Your task to perform on an android device: Show me the alarms in the clock app Image 0: 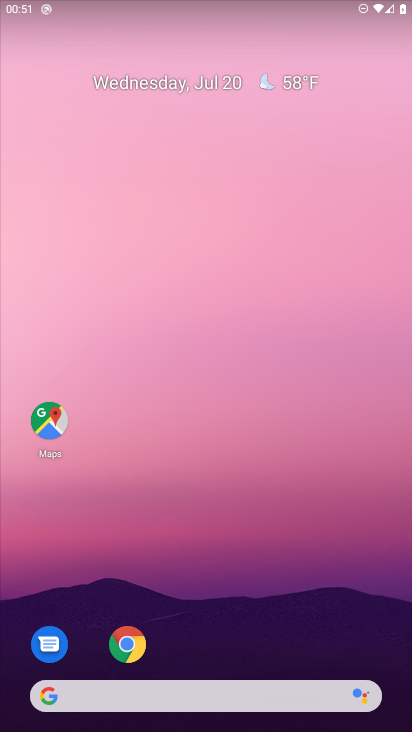
Step 0: drag from (83, 534) to (248, 100)
Your task to perform on an android device: Show me the alarms in the clock app Image 1: 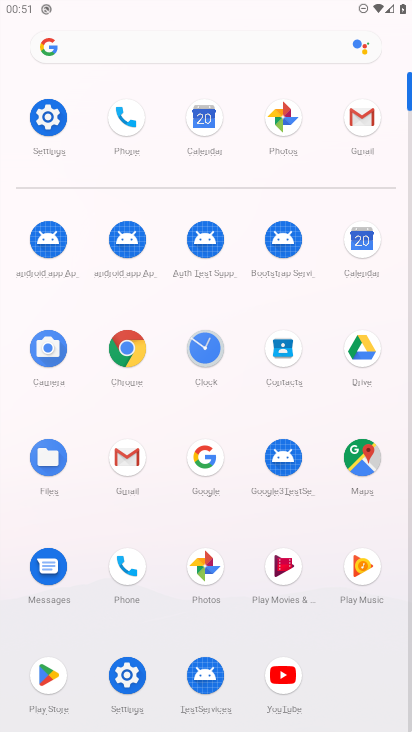
Step 1: click (204, 347)
Your task to perform on an android device: Show me the alarms in the clock app Image 2: 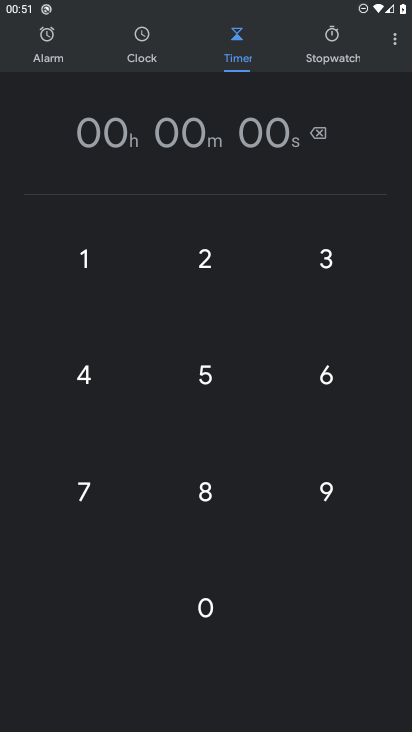
Step 2: click (395, 41)
Your task to perform on an android device: Show me the alarms in the clock app Image 3: 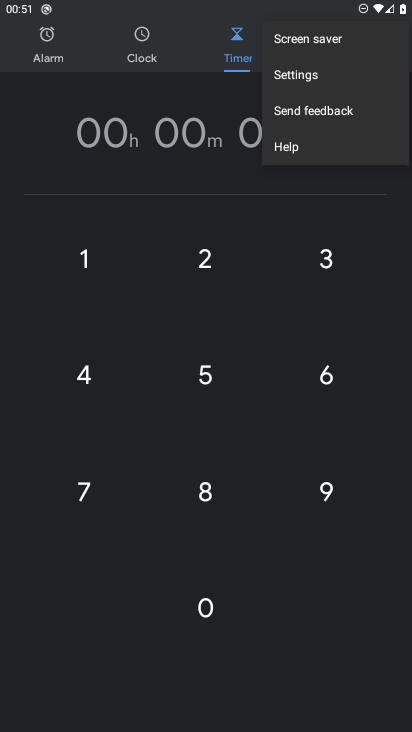
Step 3: click (55, 48)
Your task to perform on an android device: Show me the alarms in the clock app Image 4: 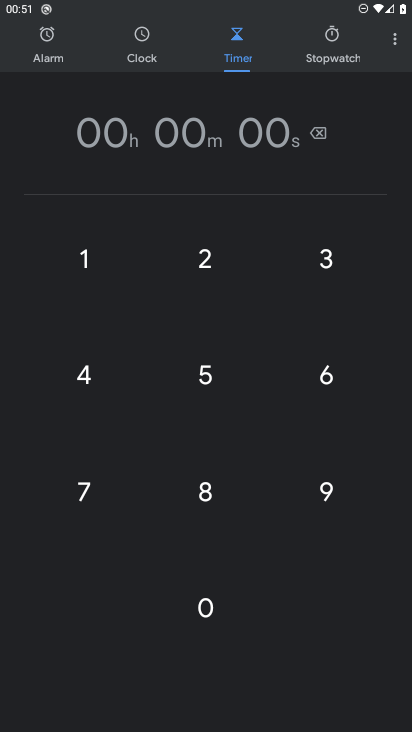
Step 4: click (34, 52)
Your task to perform on an android device: Show me the alarms in the clock app Image 5: 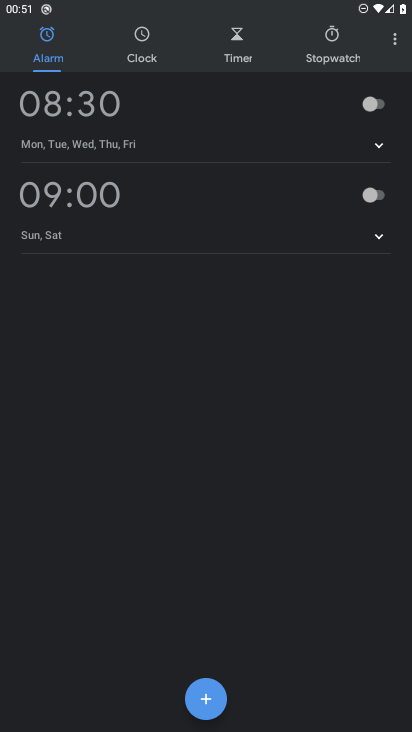
Step 5: task complete